Your task to perform on an android device: Check the news Image 0: 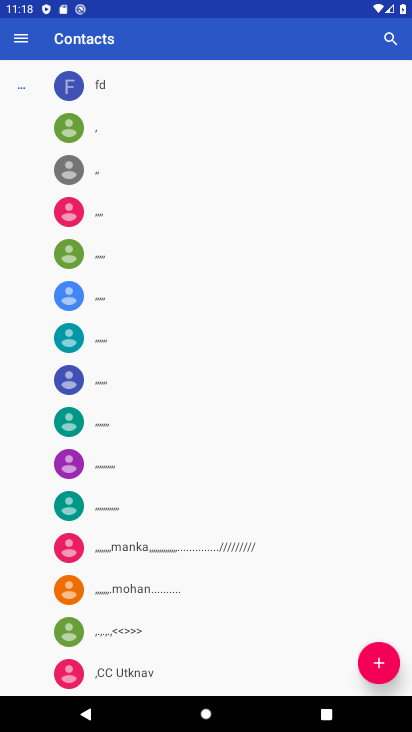
Step 0: press home button
Your task to perform on an android device: Check the news Image 1: 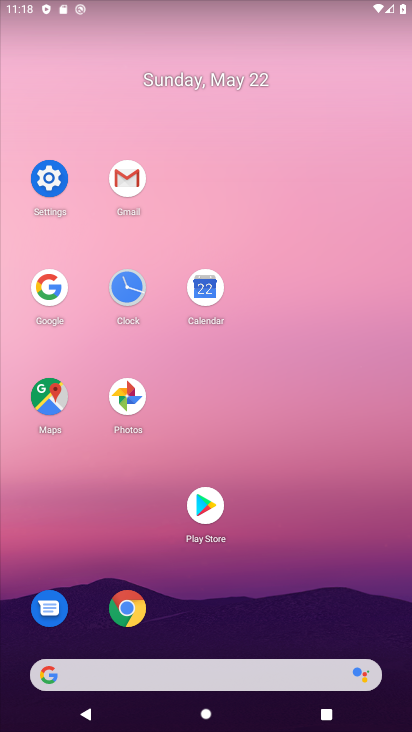
Step 1: click (51, 290)
Your task to perform on an android device: Check the news Image 2: 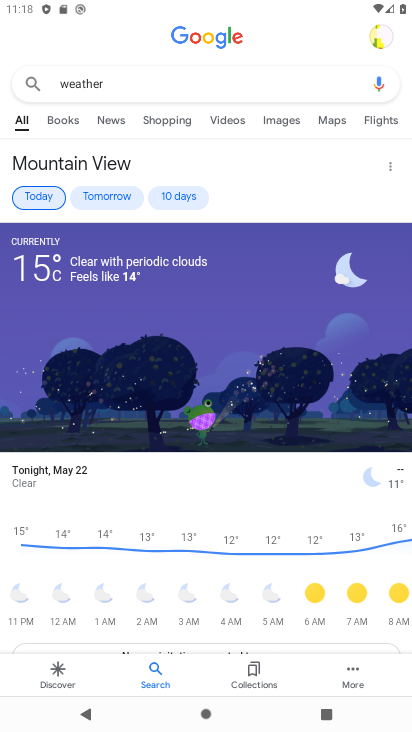
Step 2: click (204, 68)
Your task to perform on an android device: Check the news Image 3: 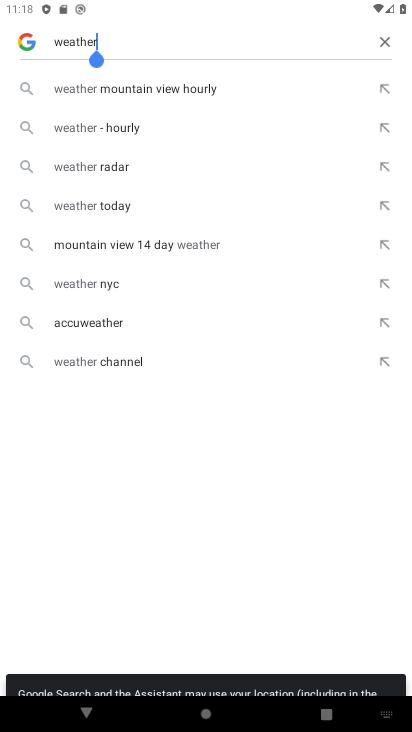
Step 3: click (386, 44)
Your task to perform on an android device: Check the news Image 4: 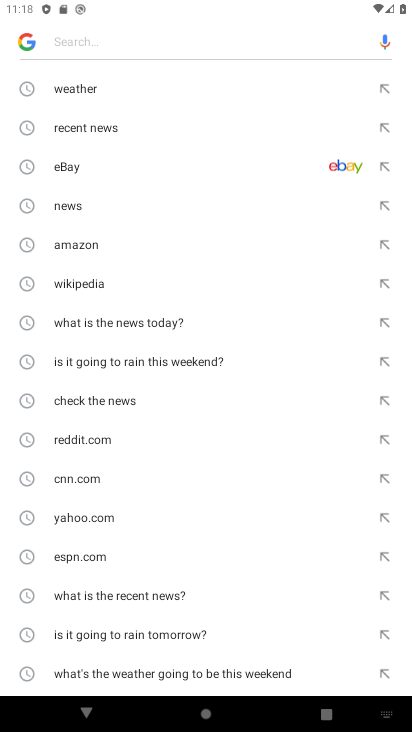
Step 4: click (107, 212)
Your task to perform on an android device: Check the news Image 5: 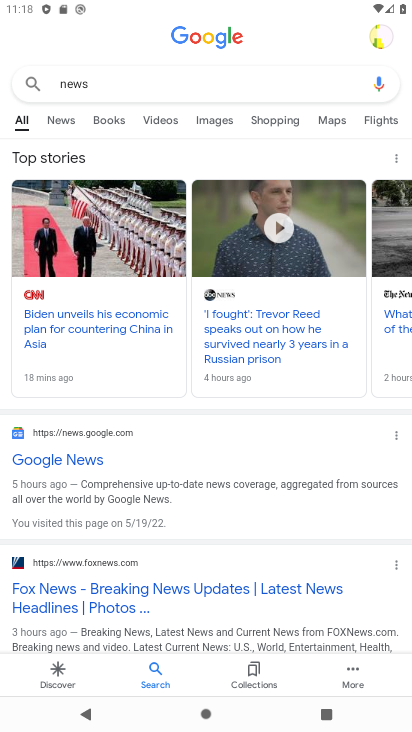
Step 5: task complete